Your task to perform on an android device: Open the web browser Image 0: 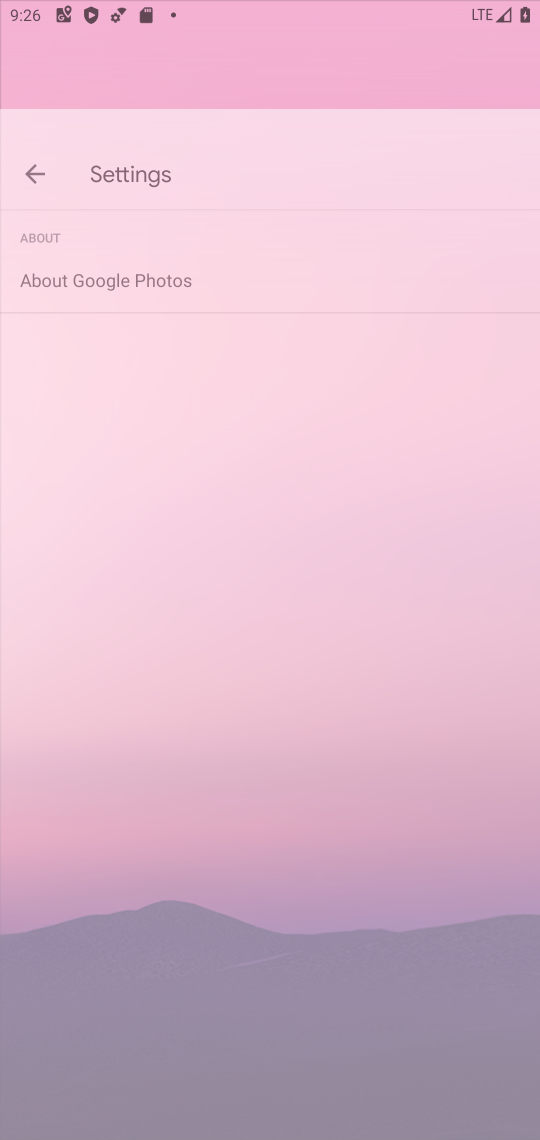
Step 0: press home button
Your task to perform on an android device: Open the web browser Image 1: 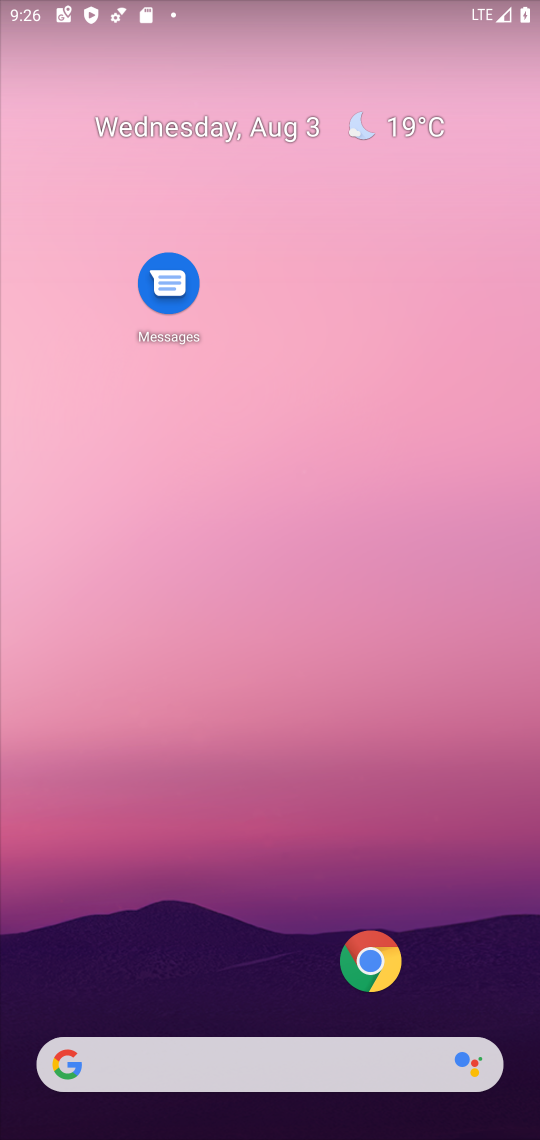
Step 1: click (358, 950)
Your task to perform on an android device: Open the web browser Image 2: 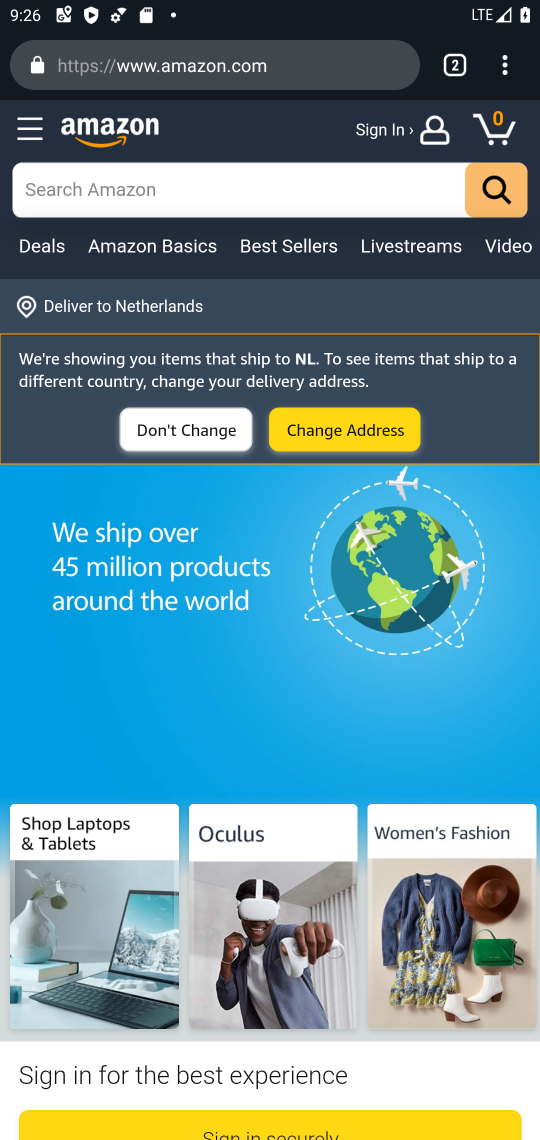
Step 2: click (156, 77)
Your task to perform on an android device: Open the web browser Image 3: 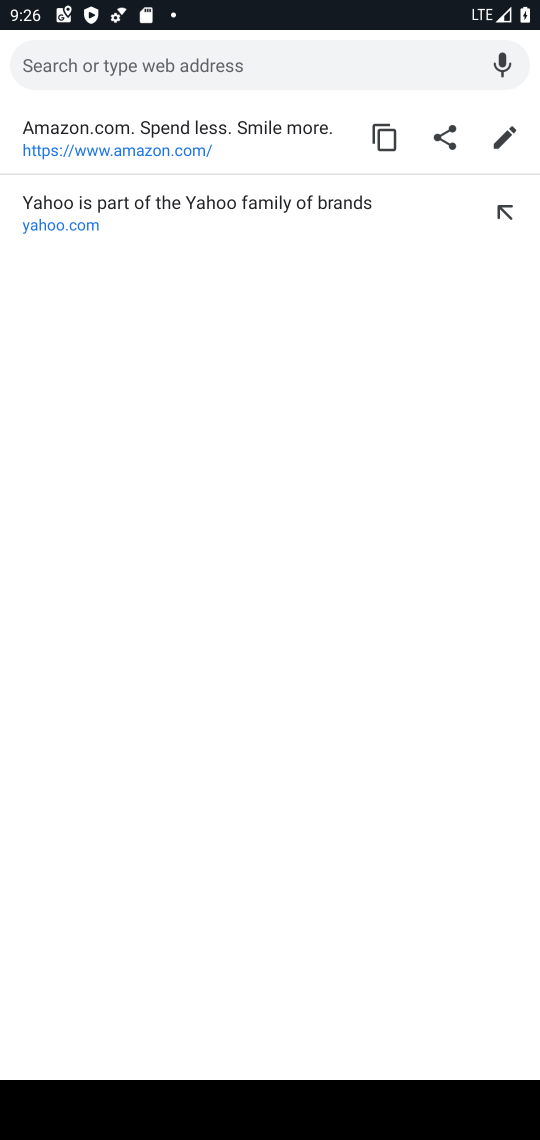
Step 3: task complete